Your task to perform on an android device: toggle data saver in the chrome app Image 0: 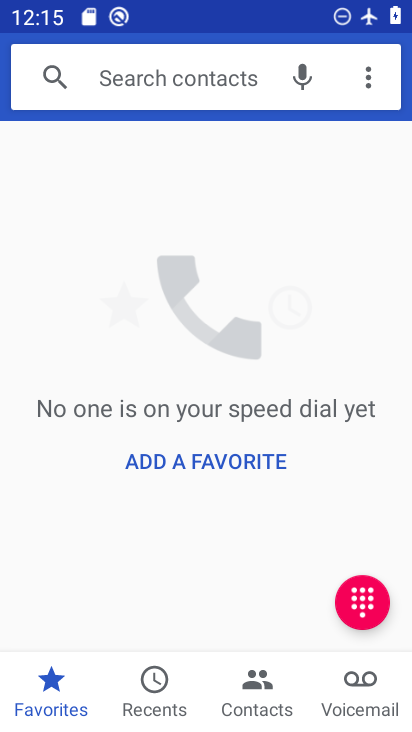
Step 0: press home button
Your task to perform on an android device: toggle data saver in the chrome app Image 1: 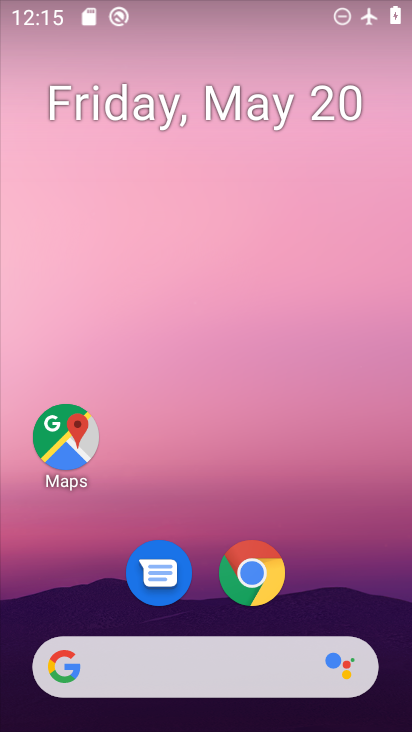
Step 1: click (252, 573)
Your task to perform on an android device: toggle data saver in the chrome app Image 2: 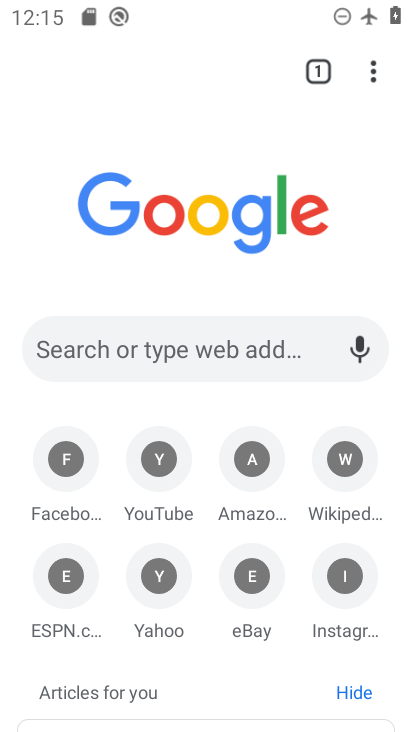
Step 2: click (373, 78)
Your task to perform on an android device: toggle data saver in the chrome app Image 3: 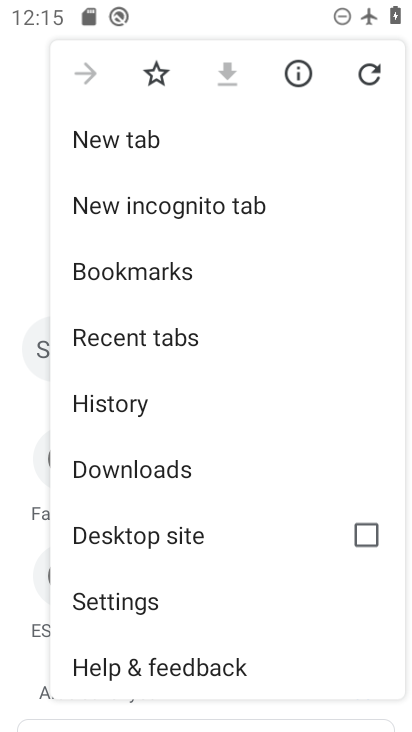
Step 3: click (127, 599)
Your task to perform on an android device: toggle data saver in the chrome app Image 4: 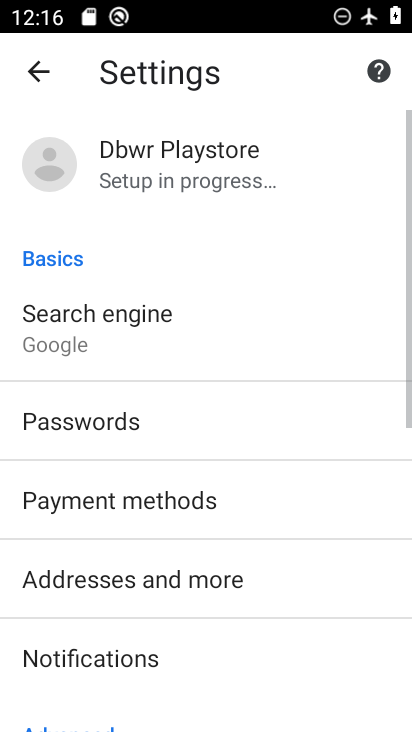
Step 4: drag from (141, 687) to (144, 247)
Your task to perform on an android device: toggle data saver in the chrome app Image 5: 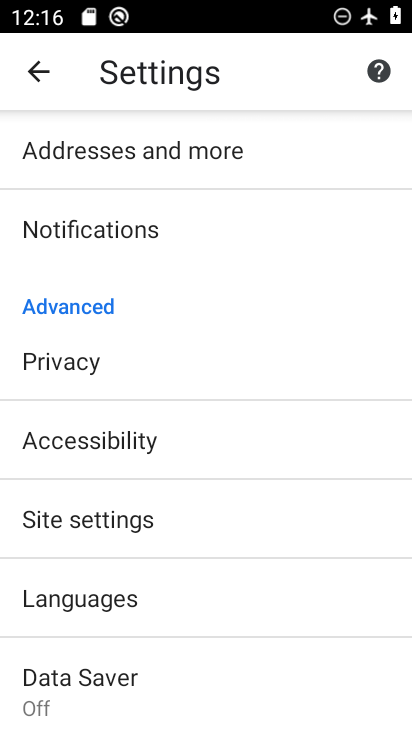
Step 5: drag from (111, 687) to (102, 281)
Your task to perform on an android device: toggle data saver in the chrome app Image 6: 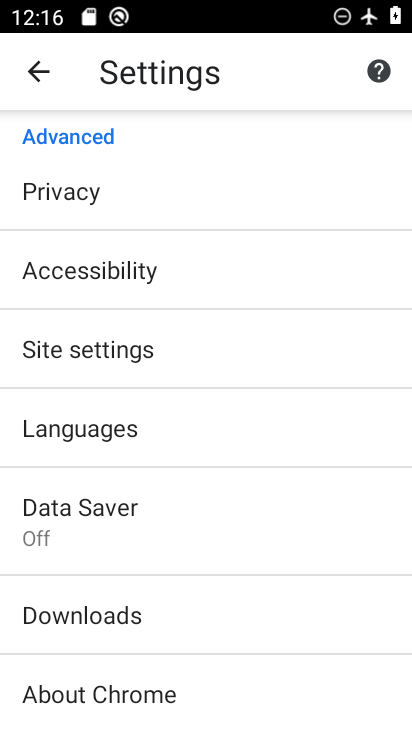
Step 6: click (84, 511)
Your task to perform on an android device: toggle data saver in the chrome app Image 7: 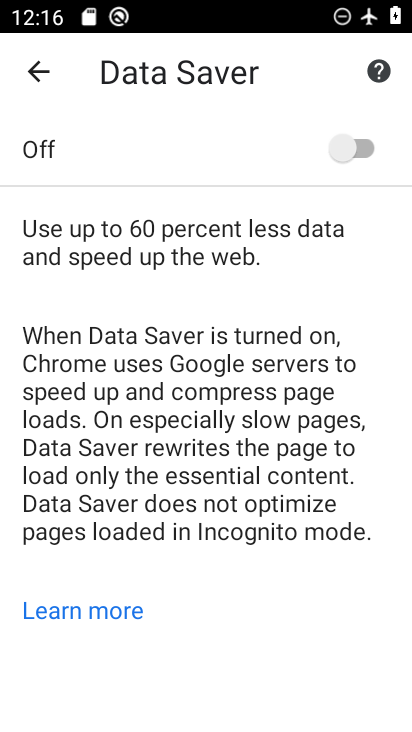
Step 7: click (356, 144)
Your task to perform on an android device: toggle data saver in the chrome app Image 8: 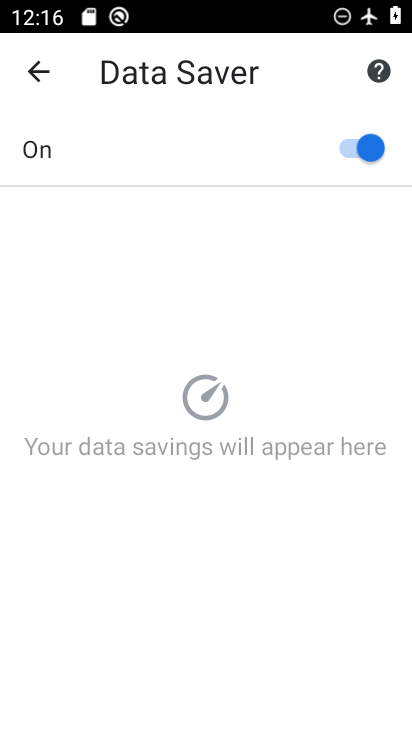
Step 8: task complete